Your task to perform on an android device: change the clock display to show seconds Image 0: 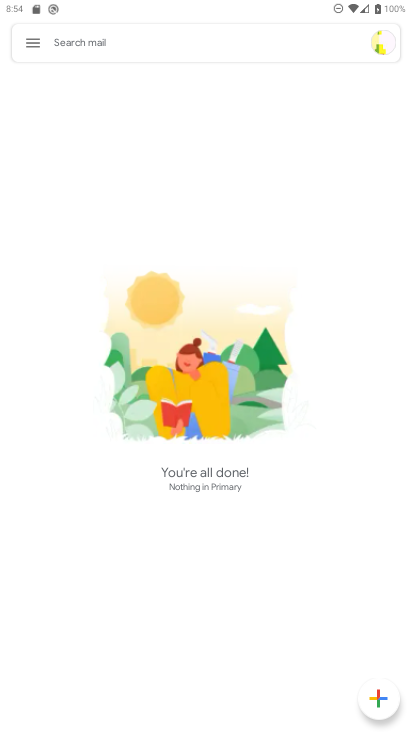
Step 0: drag from (161, 563) to (224, 438)
Your task to perform on an android device: change the clock display to show seconds Image 1: 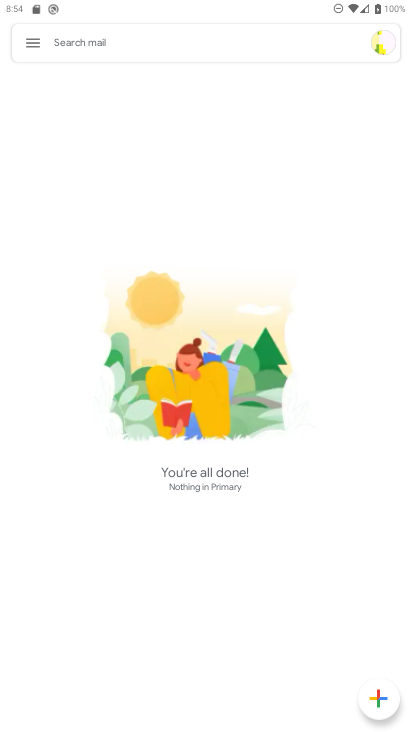
Step 1: press home button
Your task to perform on an android device: change the clock display to show seconds Image 2: 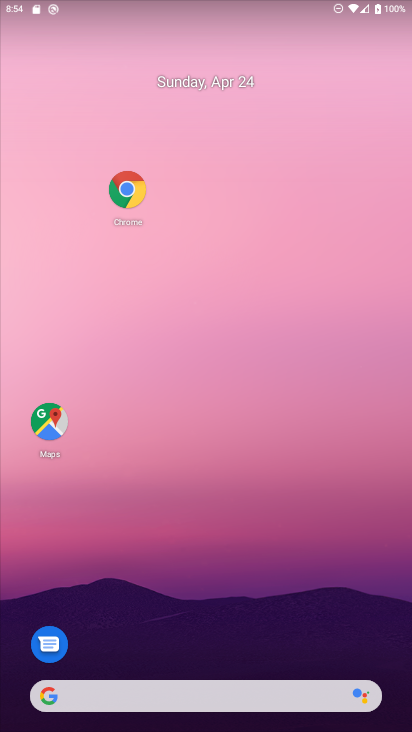
Step 2: drag from (175, 636) to (132, 185)
Your task to perform on an android device: change the clock display to show seconds Image 3: 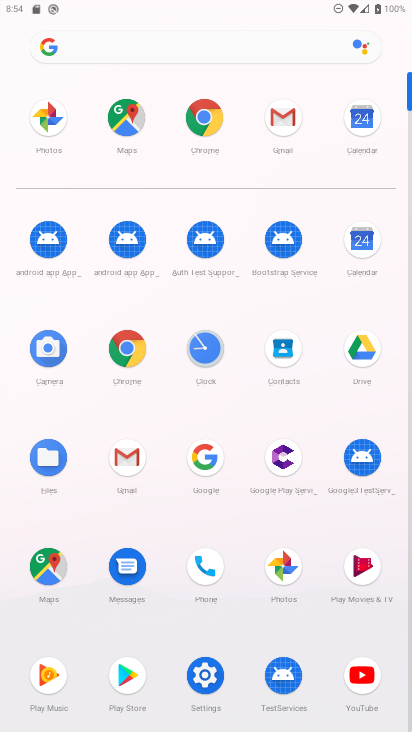
Step 3: click (214, 351)
Your task to perform on an android device: change the clock display to show seconds Image 4: 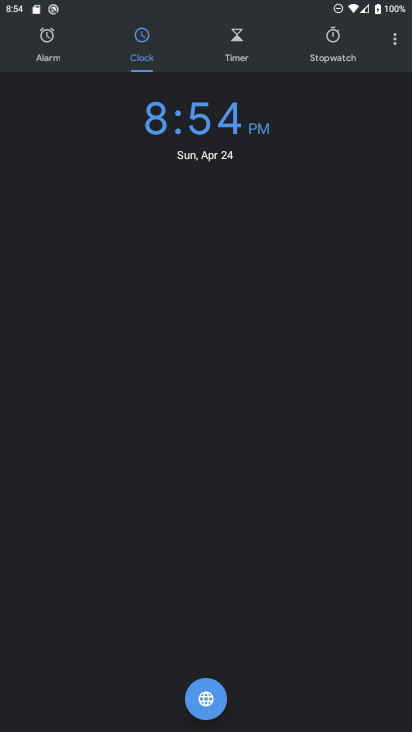
Step 4: click (394, 42)
Your task to perform on an android device: change the clock display to show seconds Image 5: 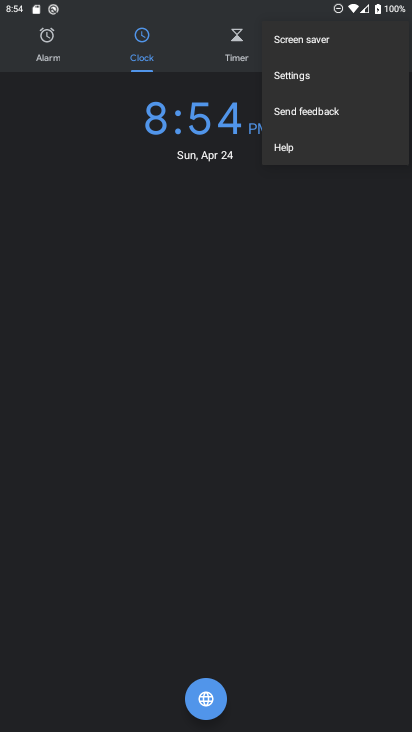
Step 5: click (303, 74)
Your task to perform on an android device: change the clock display to show seconds Image 6: 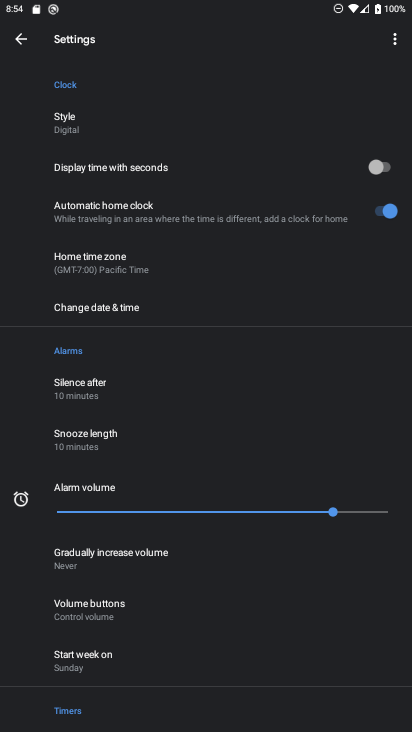
Step 6: click (381, 171)
Your task to perform on an android device: change the clock display to show seconds Image 7: 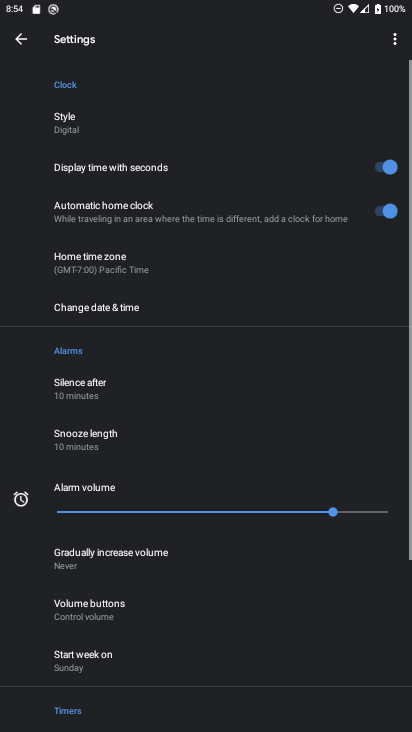
Step 7: task complete